Your task to perform on an android device: Open Wikipedia Image 0: 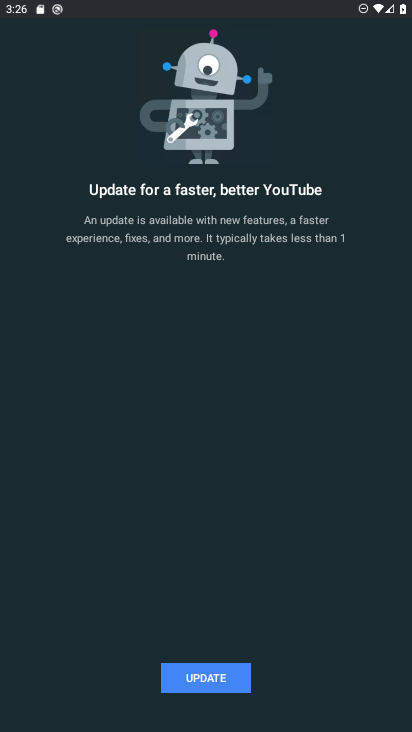
Step 0: press home button
Your task to perform on an android device: Open Wikipedia Image 1: 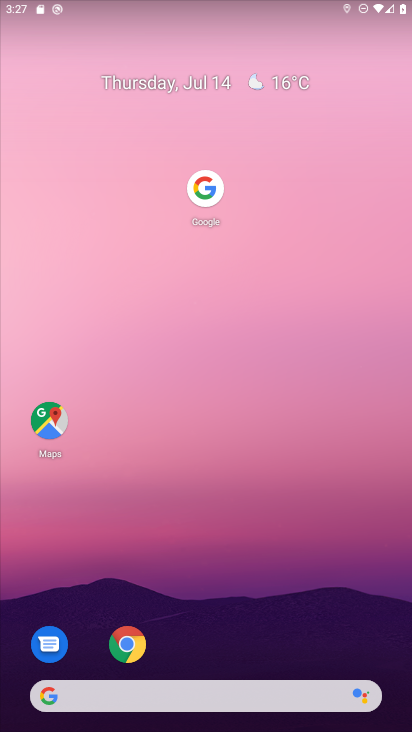
Step 1: click (135, 645)
Your task to perform on an android device: Open Wikipedia Image 2: 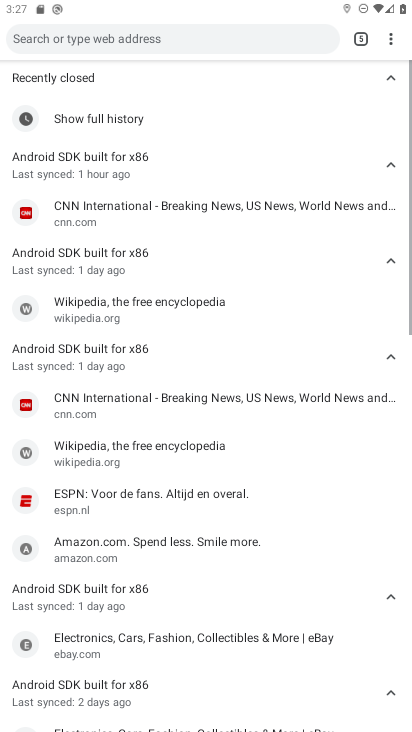
Step 2: click (364, 36)
Your task to perform on an android device: Open Wikipedia Image 3: 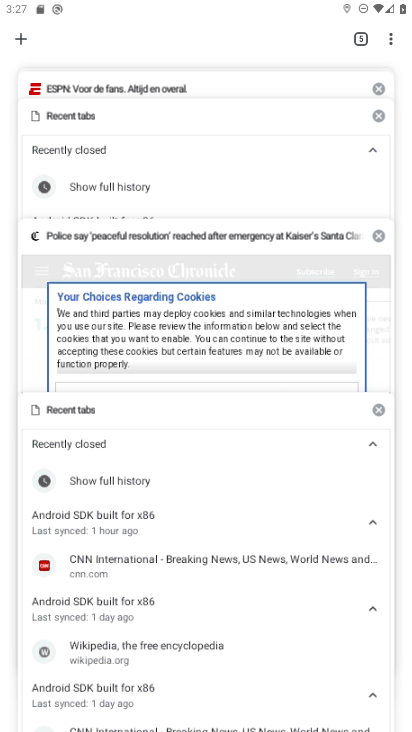
Step 3: click (12, 33)
Your task to perform on an android device: Open Wikipedia Image 4: 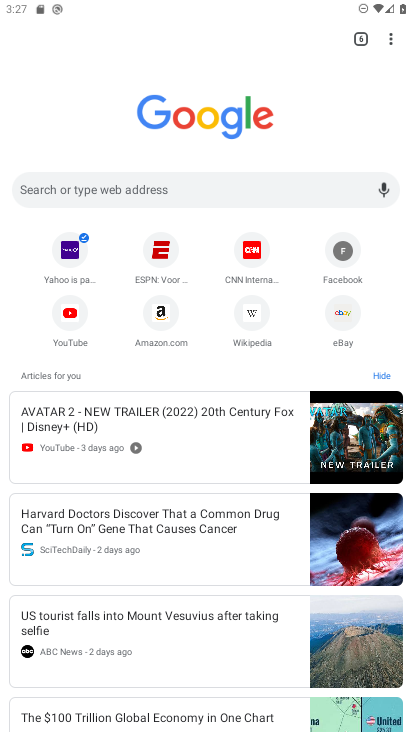
Step 4: click (249, 319)
Your task to perform on an android device: Open Wikipedia Image 5: 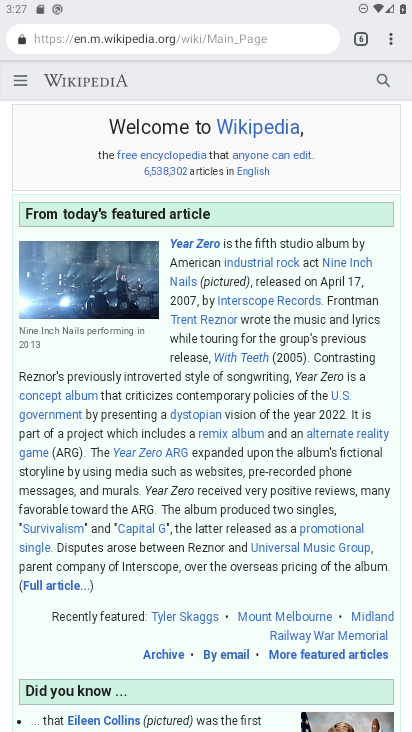
Step 5: task complete